Your task to perform on an android device: make emails show in primary in the gmail app Image 0: 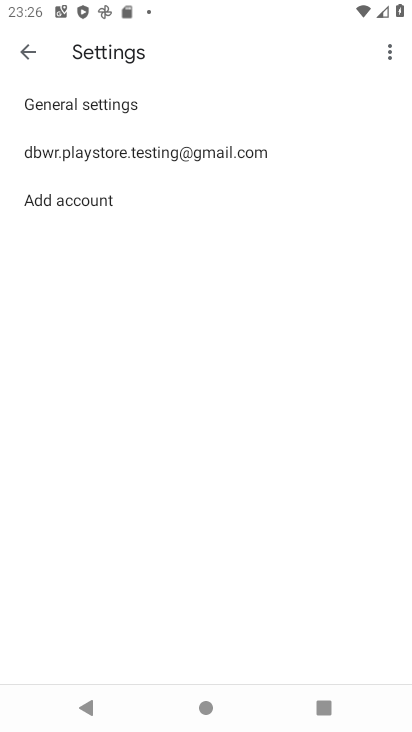
Step 0: press home button
Your task to perform on an android device: make emails show in primary in the gmail app Image 1: 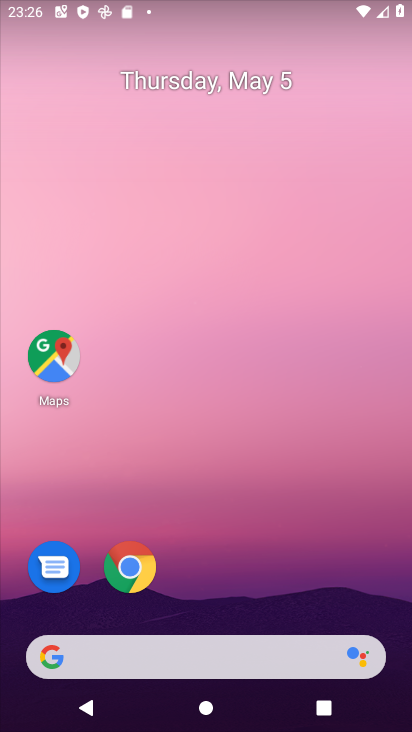
Step 1: drag from (214, 590) to (247, 163)
Your task to perform on an android device: make emails show in primary in the gmail app Image 2: 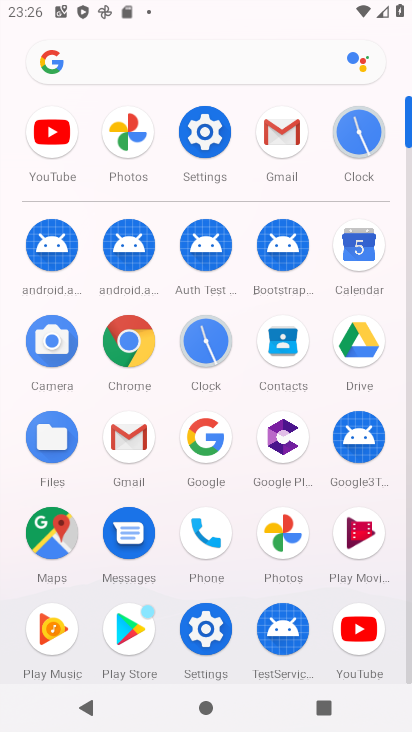
Step 2: click (275, 135)
Your task to perform on an android device: make emails show in primary in the gmail app Image 3: 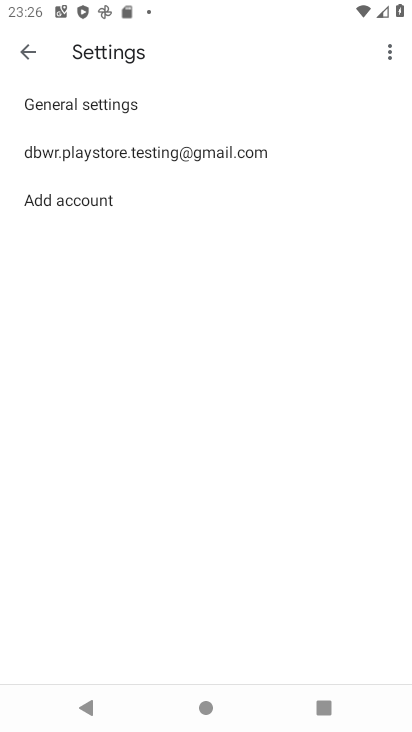
Step 3: click (20, 46)
Your task to perform on an android device: make emails show in primary in the gmail app Image 4: 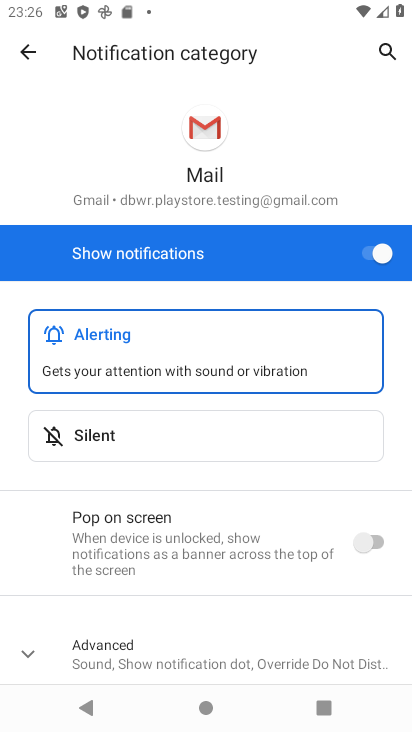
Step 4: click (20, 46)
Your task to perform on an android device: make emails show in primary in the gmail app Image 5: 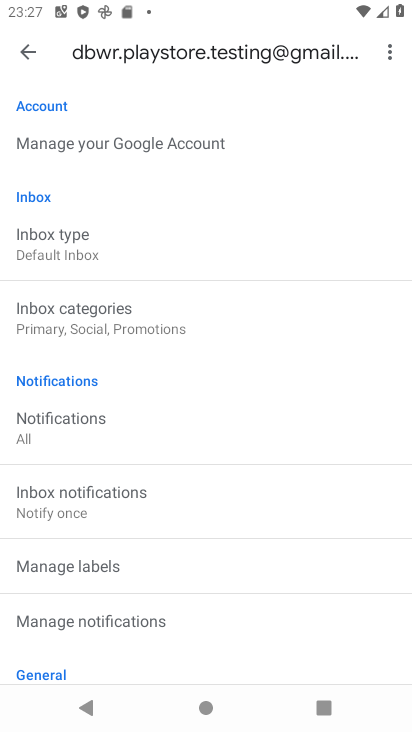
Step 5: click (101, 296)
Your task to perform on an android device: make emails show in primary in the gmail app Image 6: 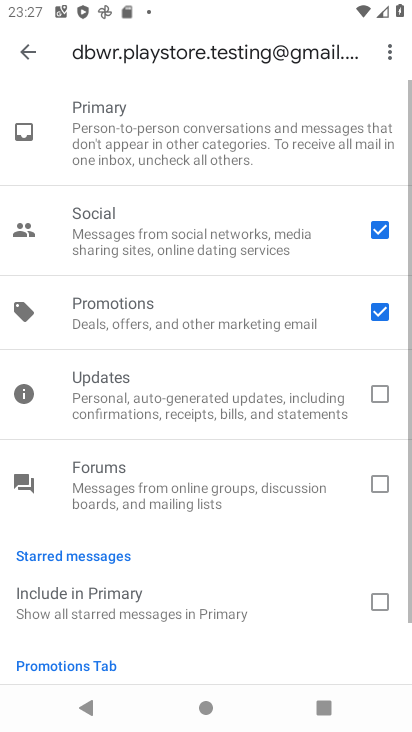
Step 6: click (141, 146)
Your task to perform on an android device: make emails show in primary in the gmail app Image 7: 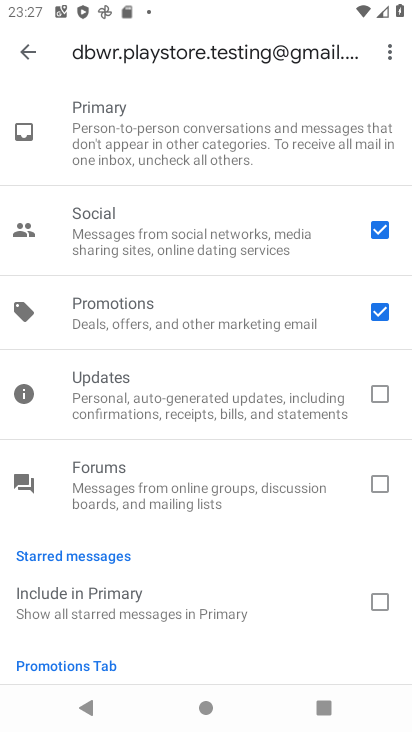
Step 7: task complete